Your task to perform on an android device: turn pop-ups off in chrome Image 0: 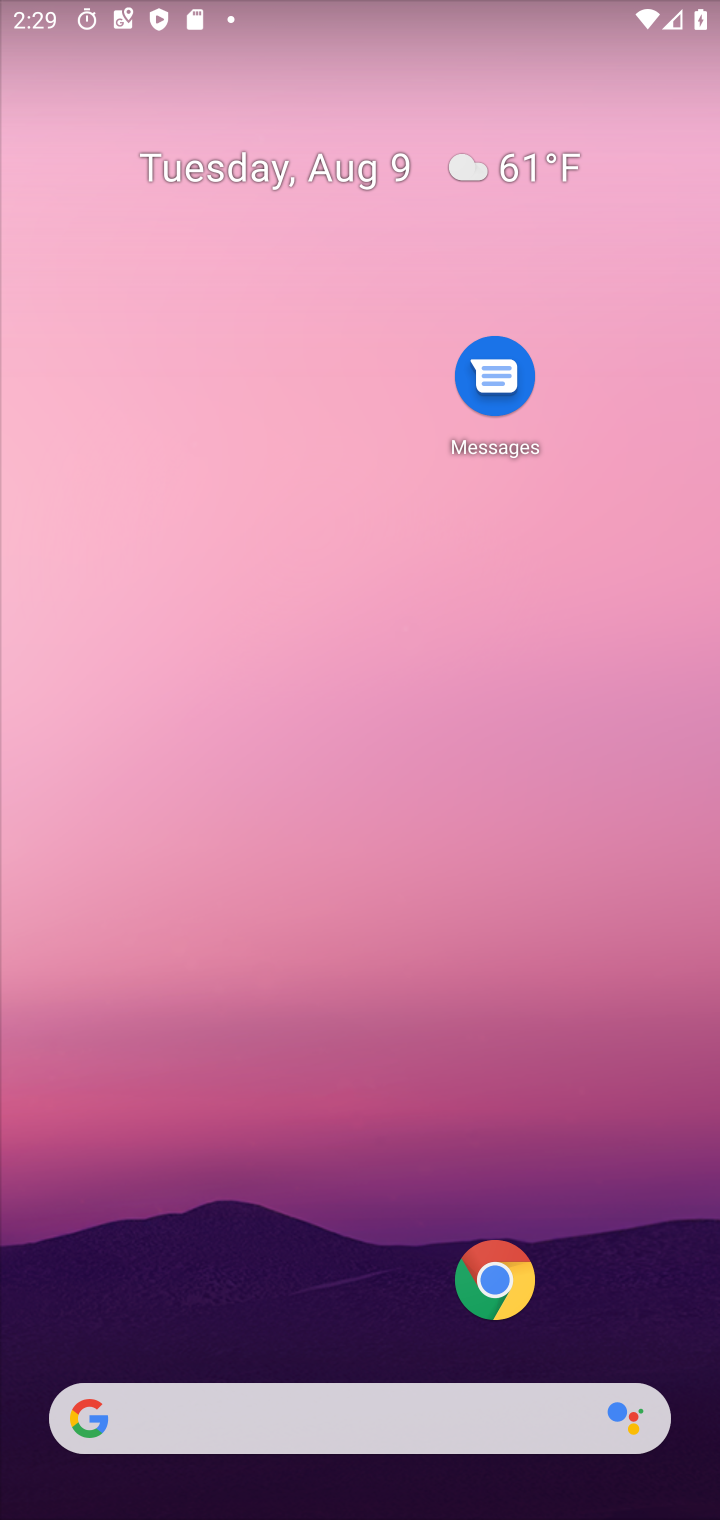
Step 0: click (486, 1281)
Your task to perform on an android device: turn pop-ups off in chrome Image 1: 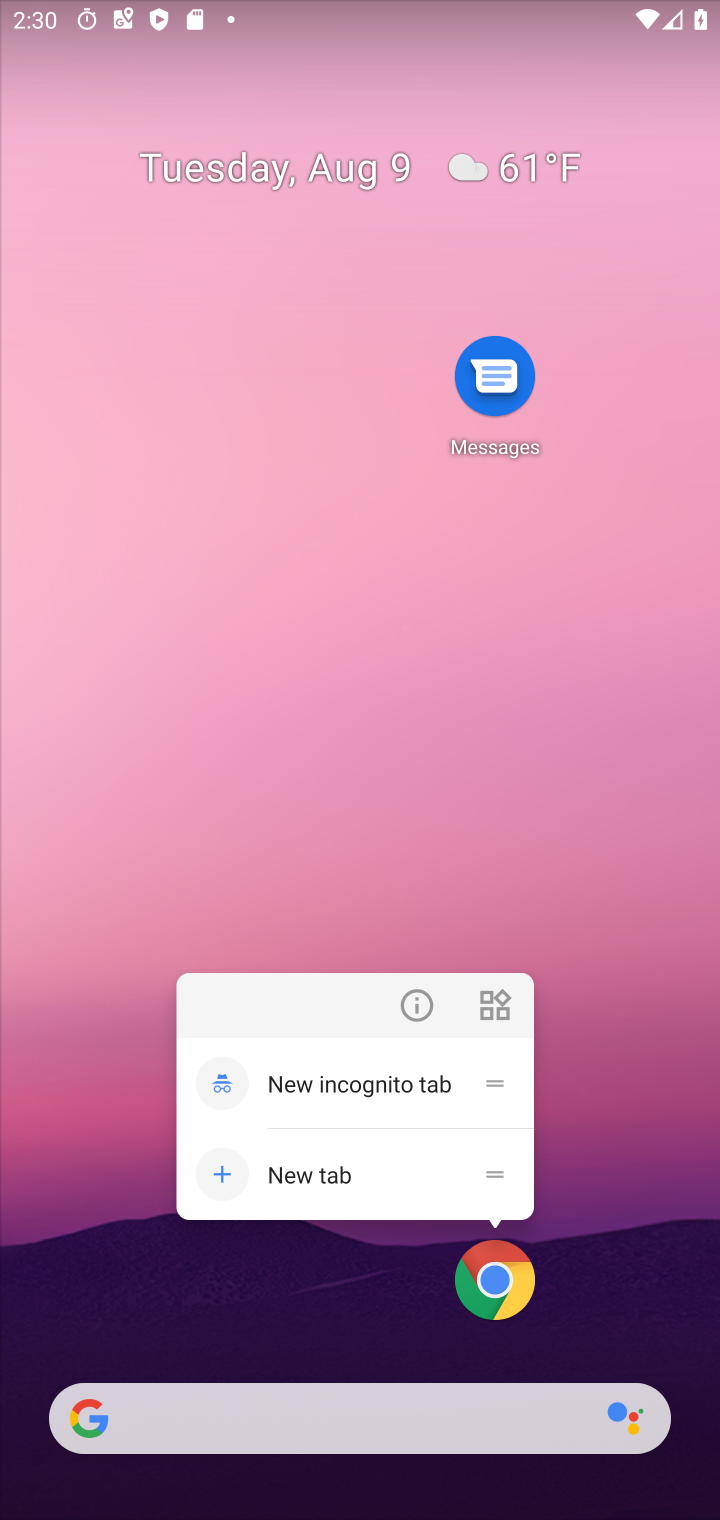
Step 1: click (504, 1265)
Your task to perform on an android device: turn pop-ups off in chrome Image 2: 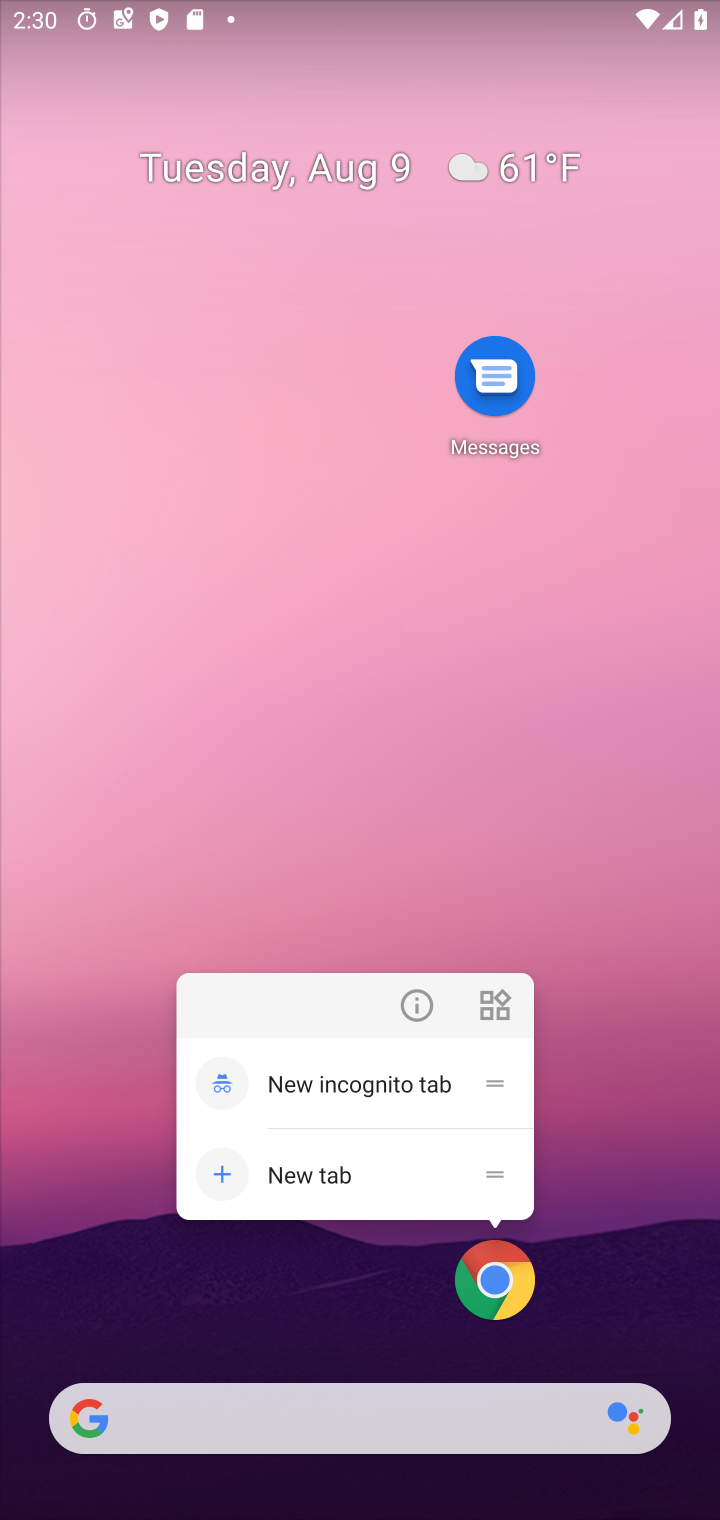
Step 2: click (504, 1276)
Your task to perform on an android device: turn pop-ups off in chrome Image 3: 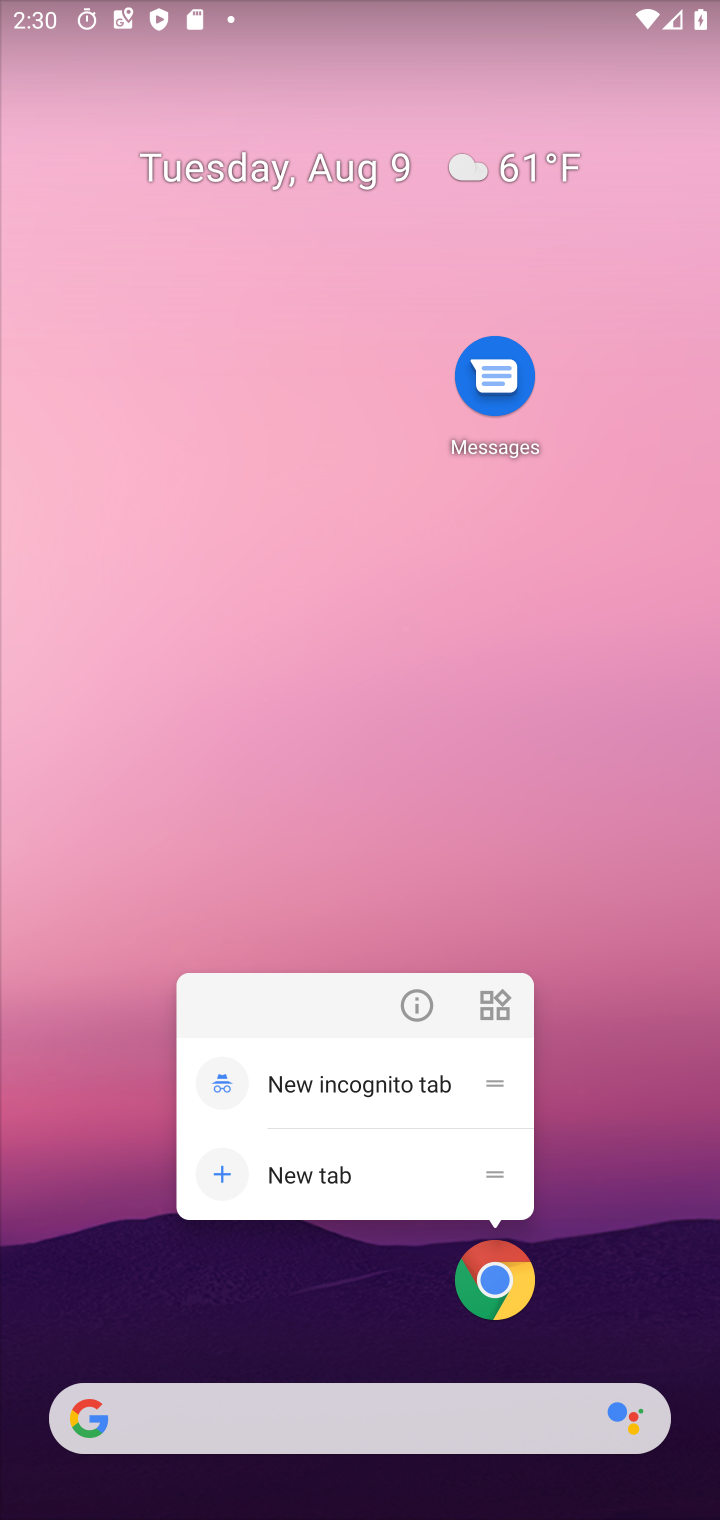
Step 3: click (504, 1276)
Your task to perform on an android device: turn pop-ups off in chrome Image 4: 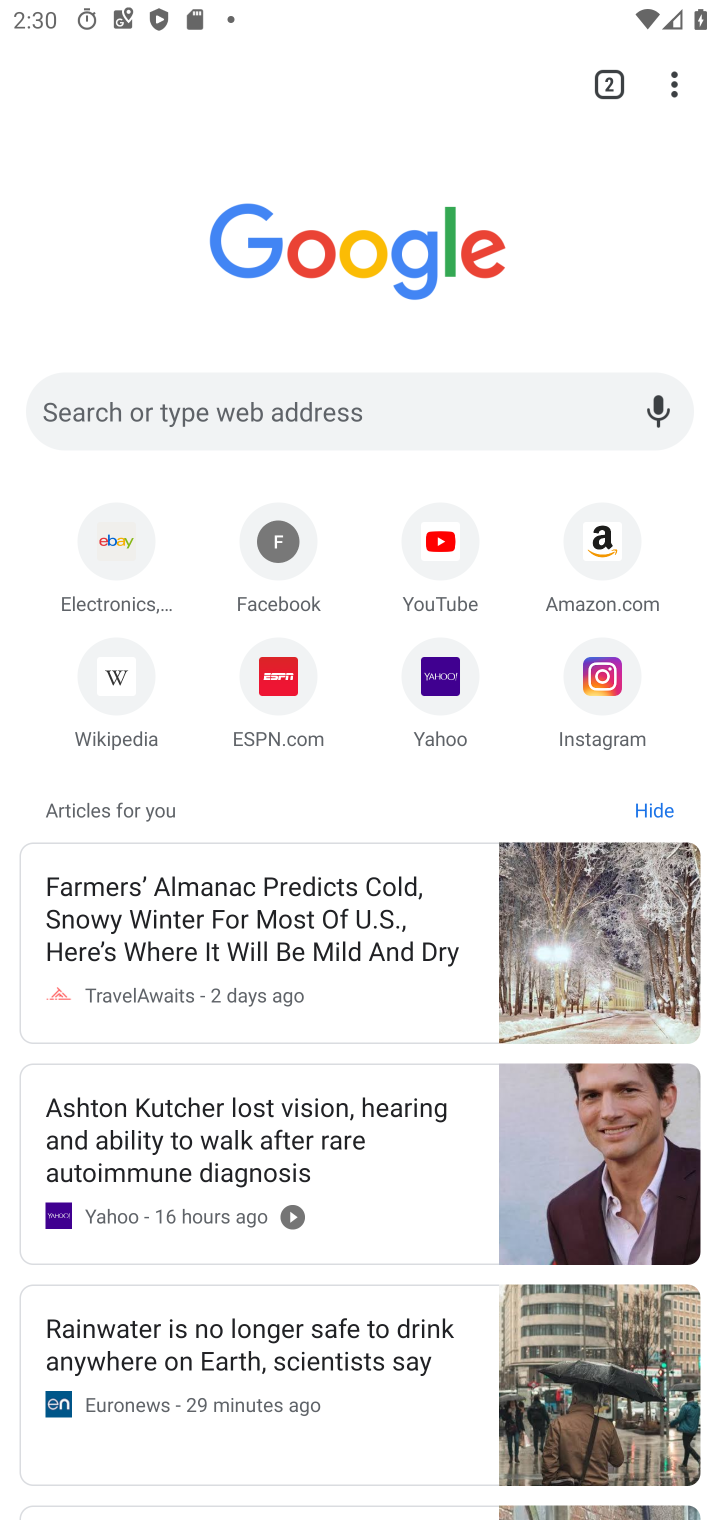
Step 4: drag from (665, 87) to (524, 700)
Your task to perform on an android device: turn pop-ups off in chrome Image 5: 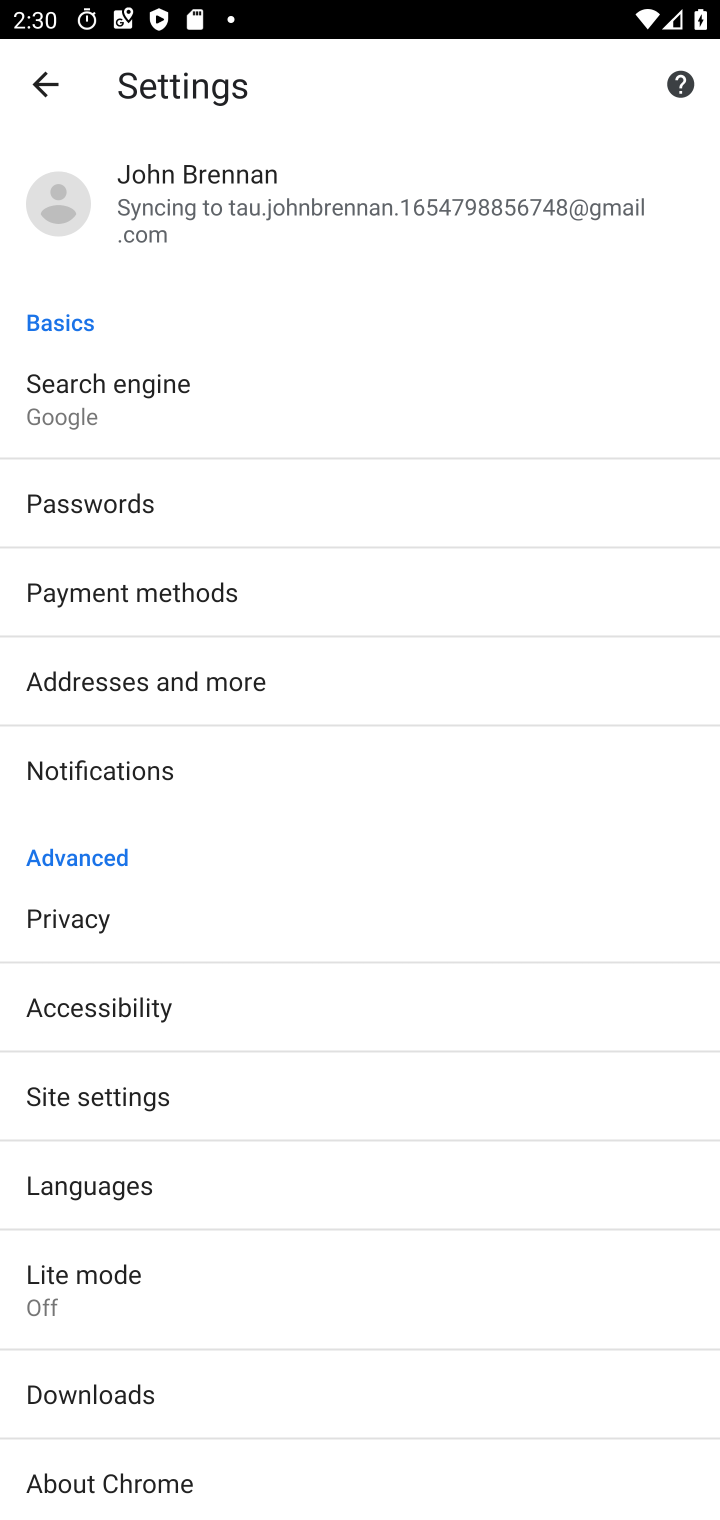
Step 5: drag from (268, 1358) to (573, 350)
Your task to perform on an android device: turn pop-ups off in chrome Image 6: 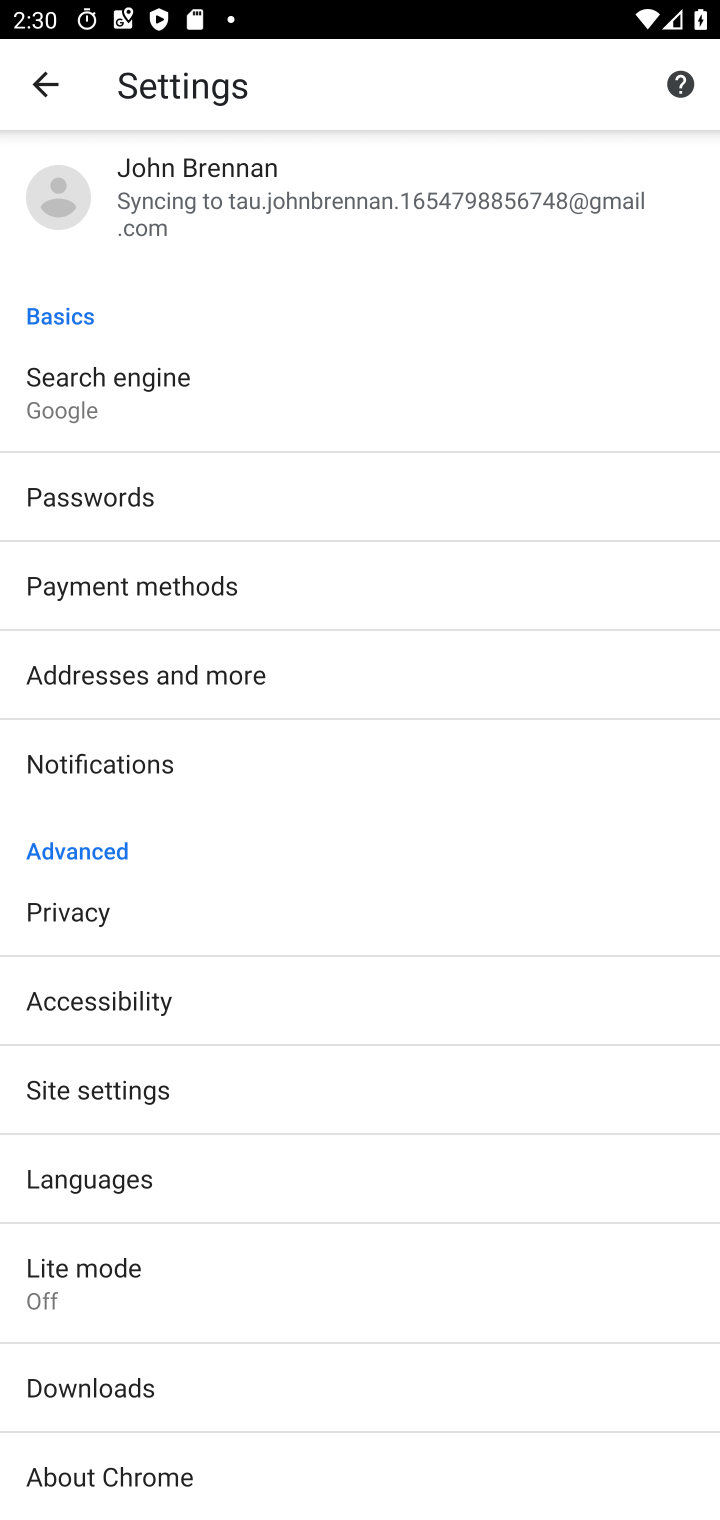
Step 6: click (133, 1089)
Your task to perform on an android device: turn pop-ups off in chrome Image 7: 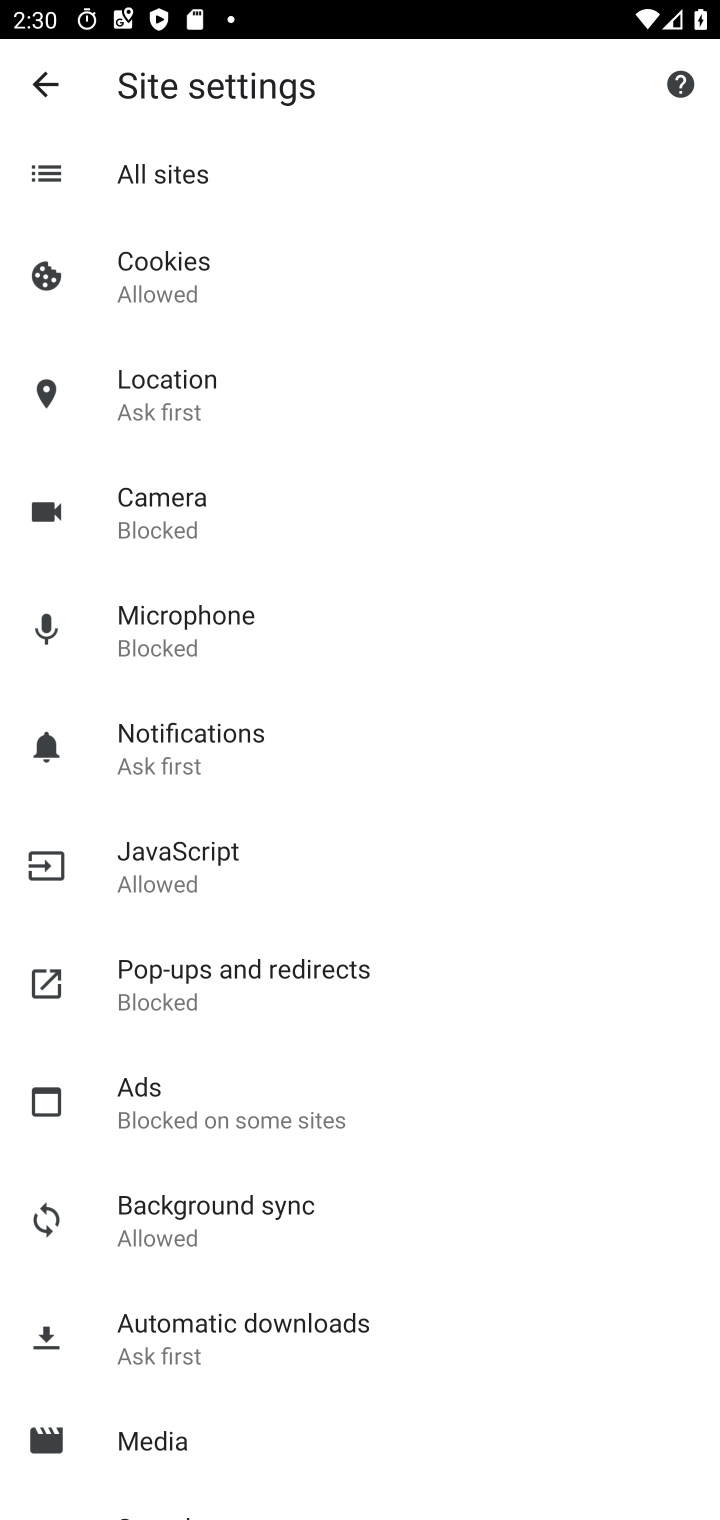
Step 7: click (214, 986)
Your task to perform on an android device: turn pop-ups off in chrome Image 8: 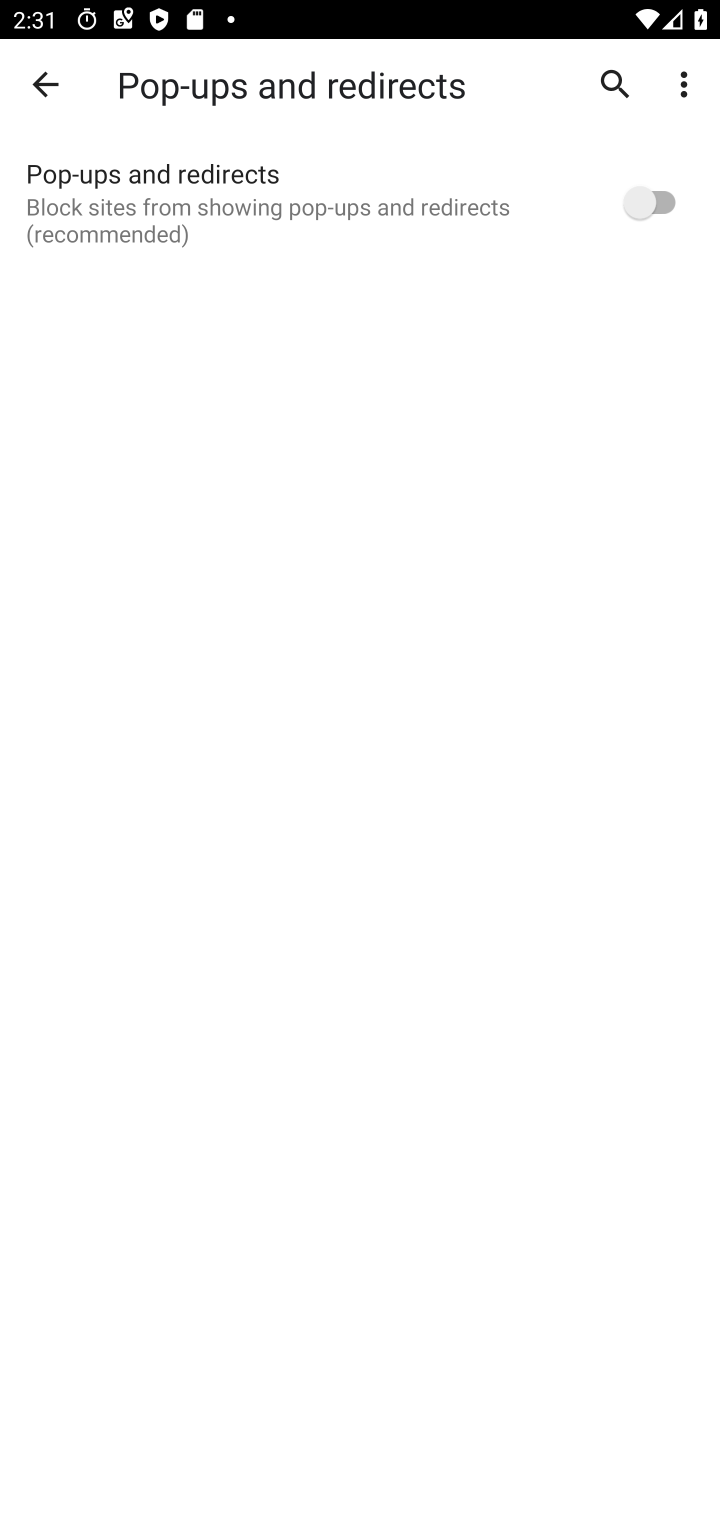
Step 8: task complete